Your task to perform on an android device: Do I have any events today? Image 0: 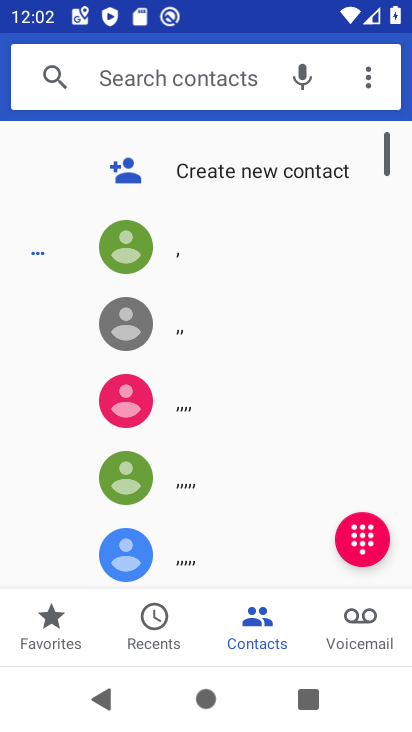
Step 0: press home button
Your task to perform on an android device: Do I have any events today? Image 1: 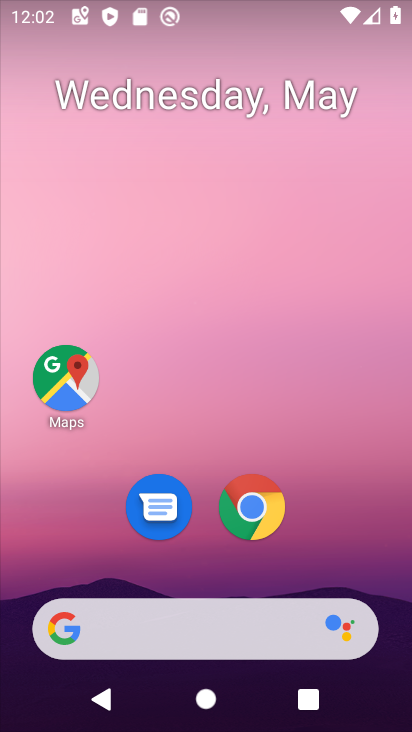
Step 1: drag from (291, 558) to (308, 129)
Your task to perform on an android device: Do I have any events today? Image 2: 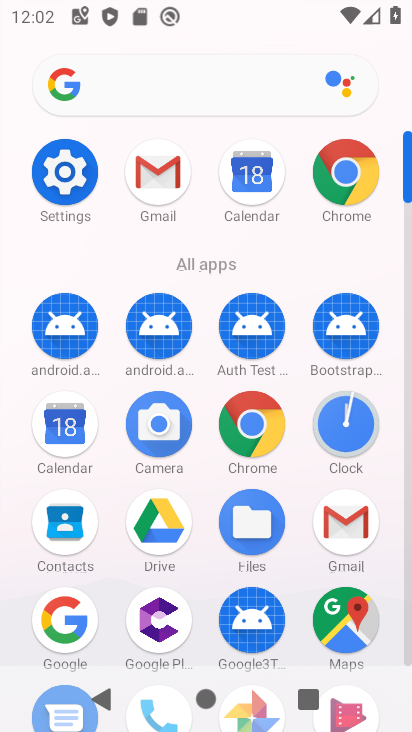
Step 2: click (80, 412)
Your task to perform on an android device: Do I have any events today? Image 3: 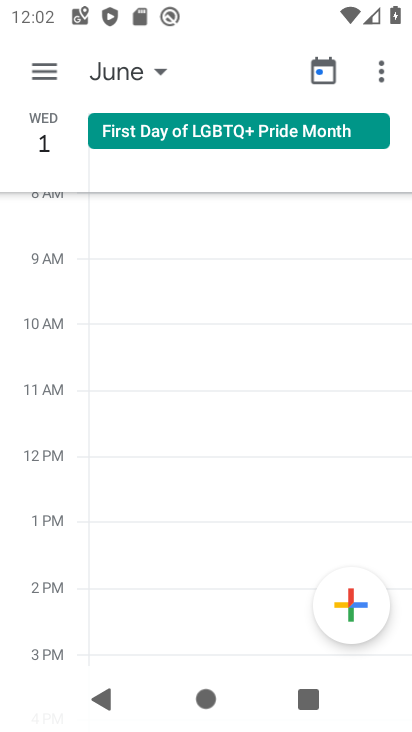
Step 3: click (32, 66)
Your task to perform on an android device: Do I have any events today? Image 4: 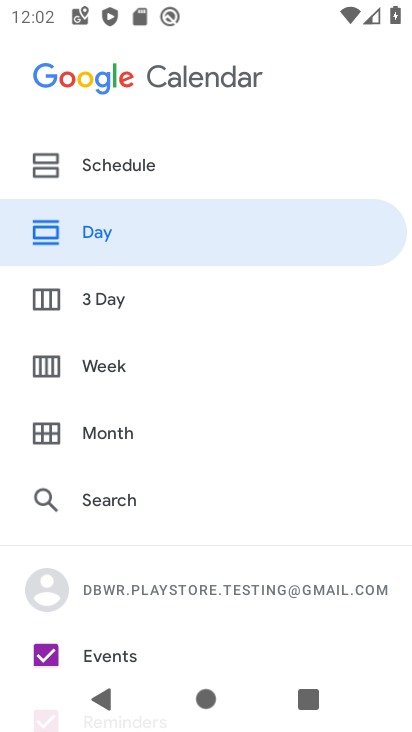
Step 4: click (109, 240)
Your task to perform on an android device: Do I have any events today? Image 5: 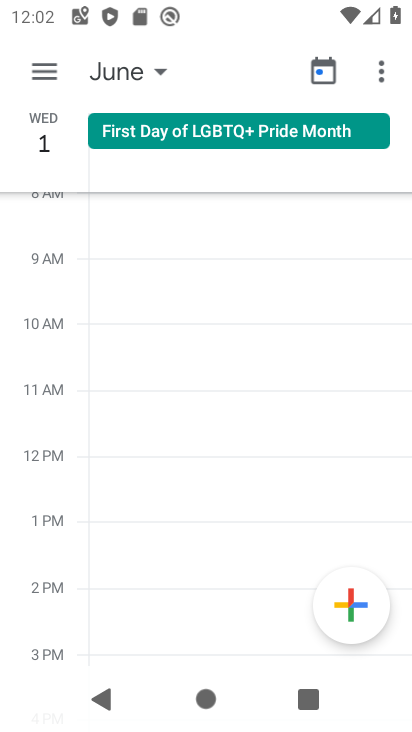
Step 5: click (7, 59)
Your task to perform on an android device: Do I have any events today? Image 6: 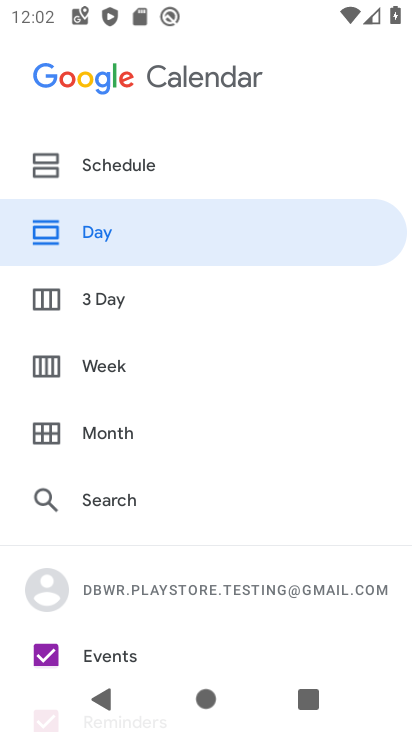
Step 6: click (111, 446)
Your task to perform on an android device: Do I have any events today? Image 7: 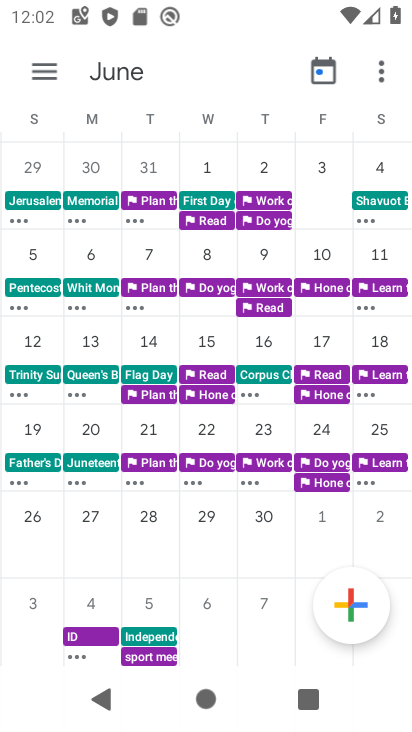
Step 7: drag from (89, 367) to (402, 429)
Your task to perform on an android device: Do I have any events today? Image 8: 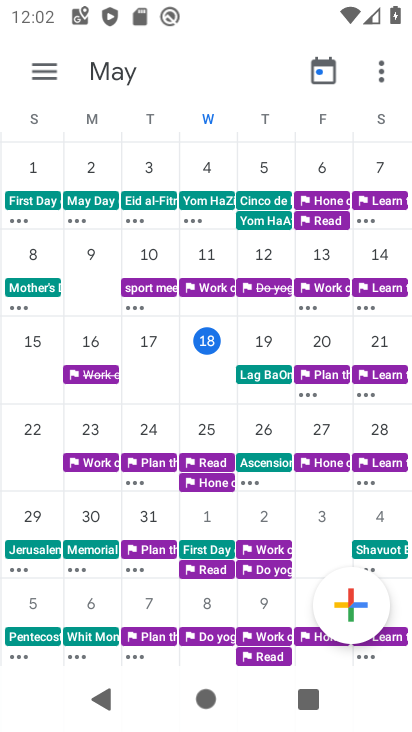
Step 8: click (201, 340)
Your task to perform on an android device: Do I have any events today? Image 9: 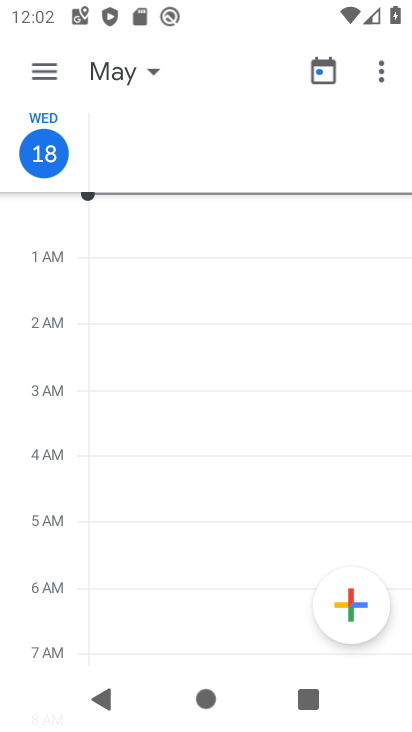
Step 9: task complete